Your task to perform on an android device: Search for pizza restaurants on Maps Image 0: 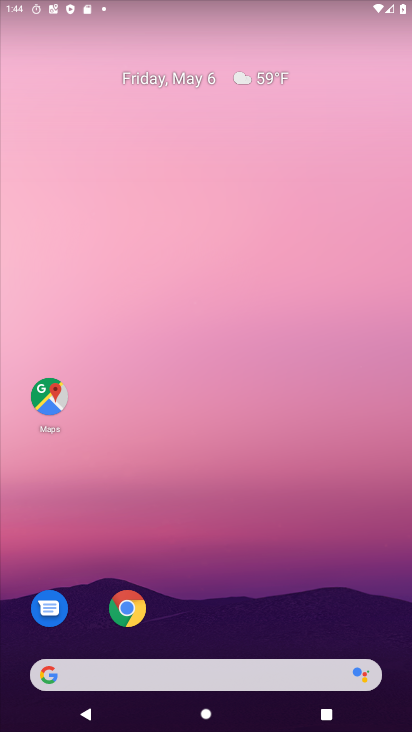
Step 0: click (48, 401)
Your task to perform on an android device: Search for pizza restaurants on Maps Image 1: 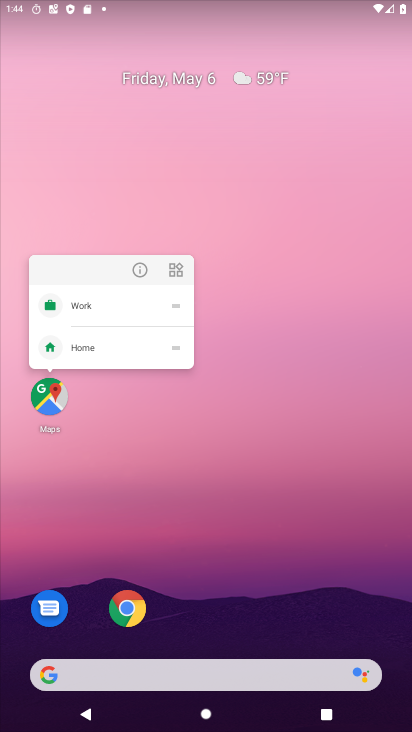
Step 1: click (143, 270)
Your task to perform on an android device: Search for pizza restaurants on Maps Image 2: 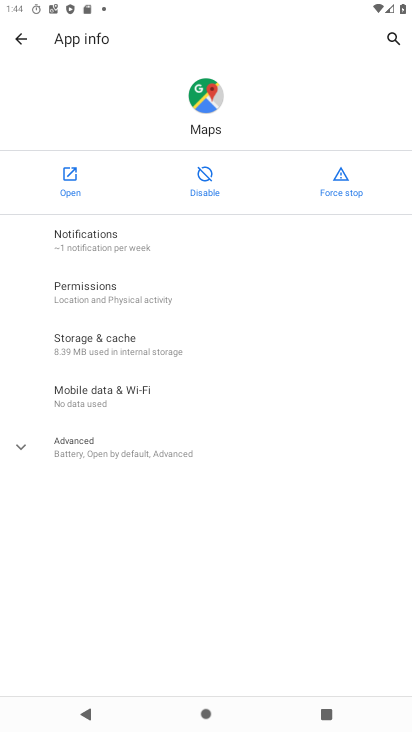
Step 2: click (81, 174)
Your task to perform on an android device: Search for pizza restaurants on Maps Image 3: 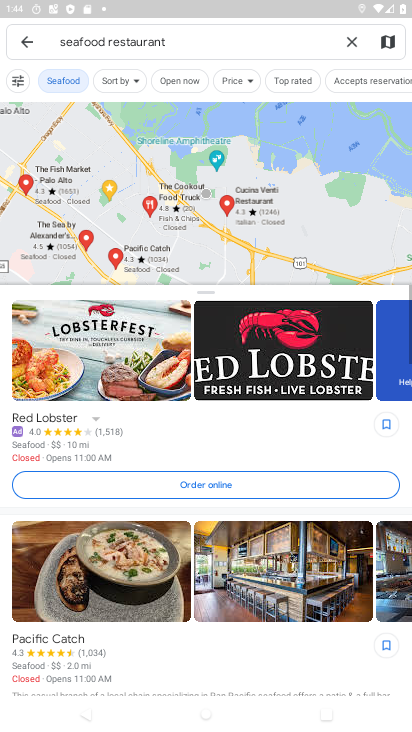
Step 3: click (216, 42)
Your task to perform on an android device: Search for pizza restaurants on Maps Image 4: 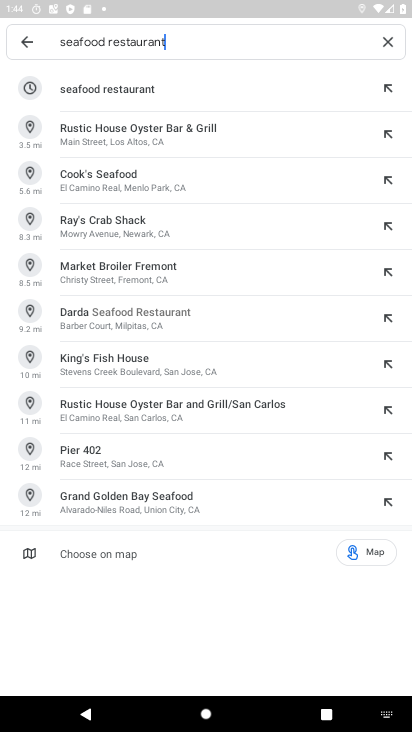
Step 4: click (352, 46)
Your task to perform on an android device: Search for pizza restaurants on Maps Image 5: 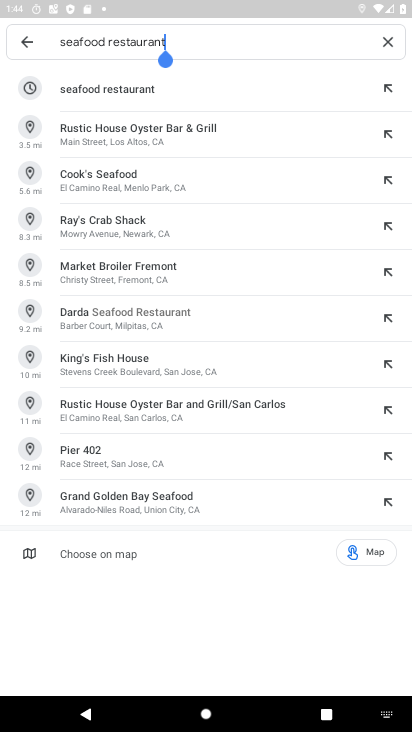
Step 5: click (388, 44)
Your task to perform on an android device: Search for pizza restaurants on Maps Image 6: 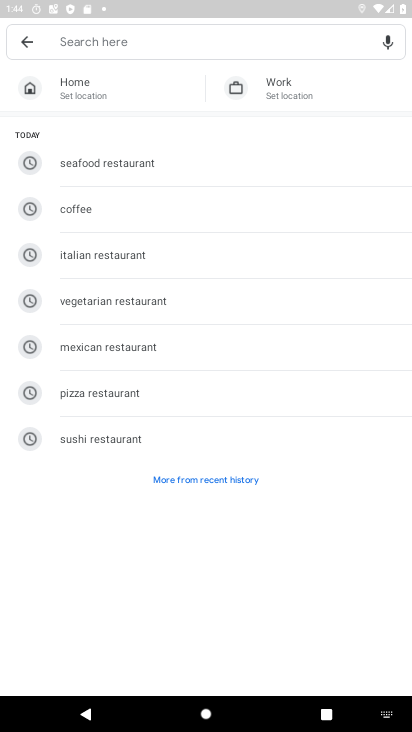
Step 6: type "pizza restaurants"
Your task to perform on an android device: Search for pizza restaurants on Maps Image 7: 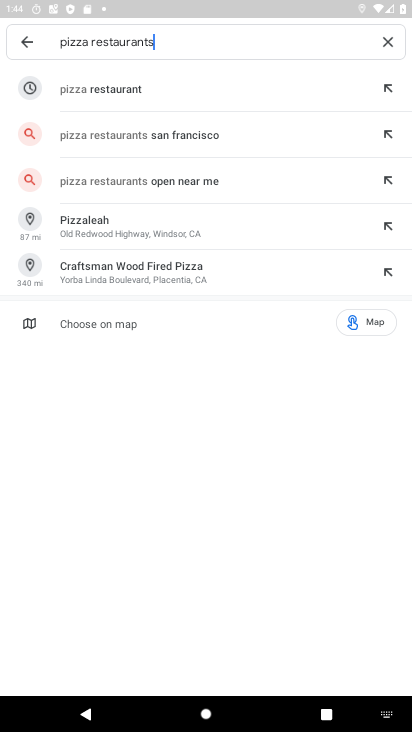
Step 7: click (131, 101)
Your task to perform on an android device: Search for pizza restaurants on Maps Image 8: 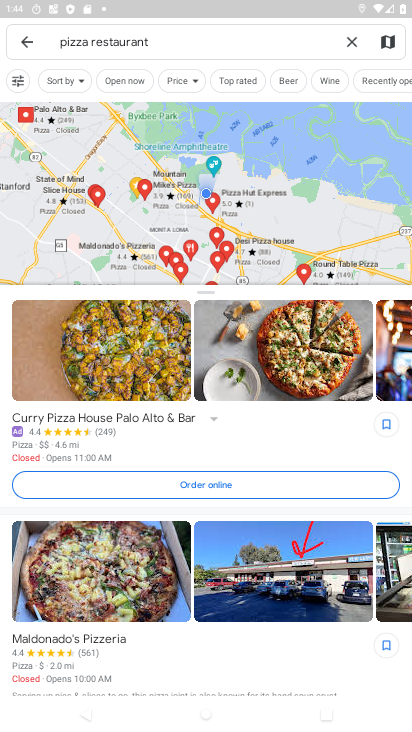
Step 8: task complete